Your task to perform on an android device: set default search engine in the chrome app Image 0: 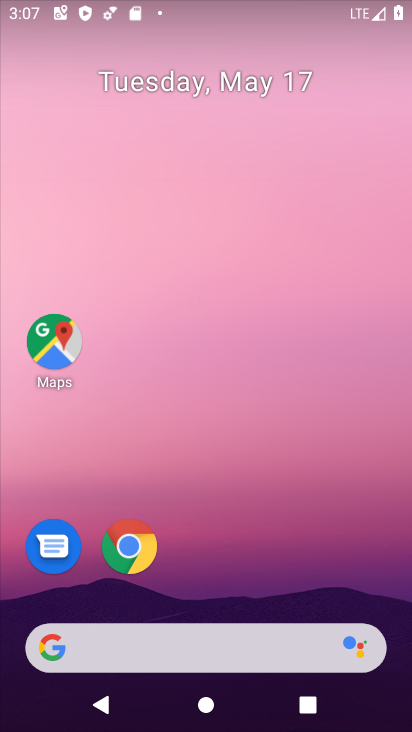
Step 0: press home button
Your task to perform on an android device: set default search engine in the chrome app Image 1: 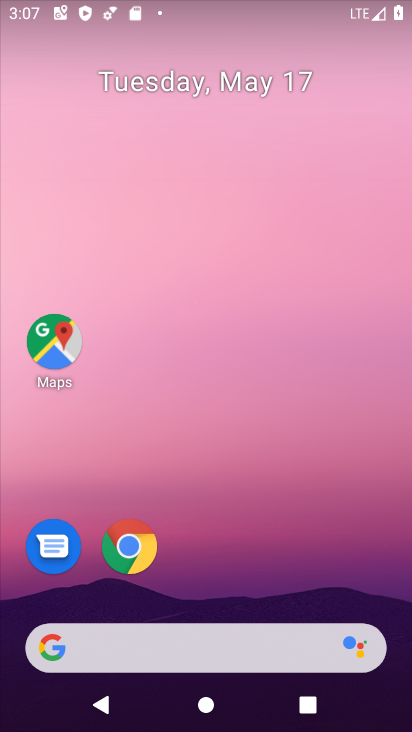
Step 1: press home button
Your task to perform on an android device: set default search engine in the chrome app Image 2: 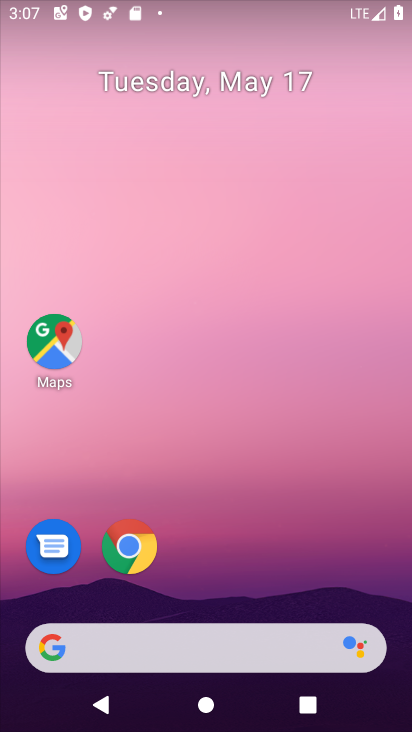
Step 2: click (124, 536)
Your task to perform on an android device: set default search engine in the chrome app Image 3: 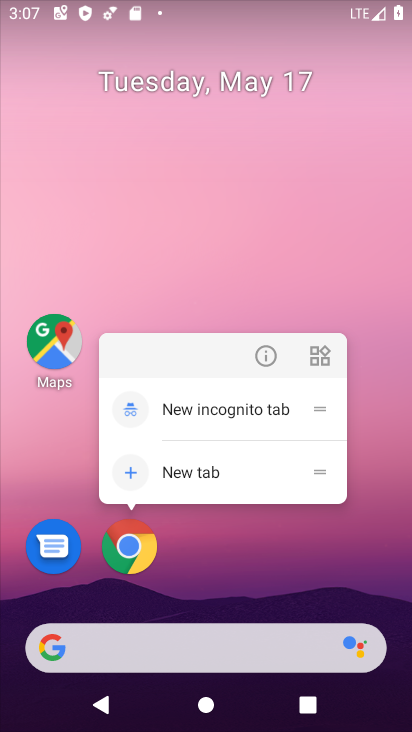
Step 3: click (124, 536)
Your task to perform on an android device: set default search engine in the chrome app Image 4: 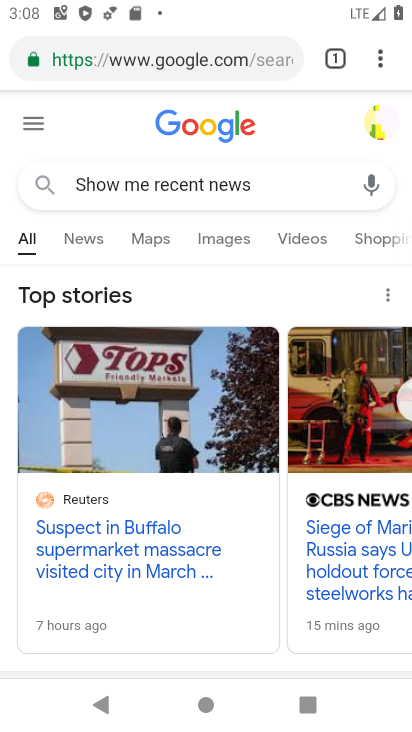
Step 4: click (270, 179)
Your task to perform on an android device: set default search engine in the chrome app Image 5: 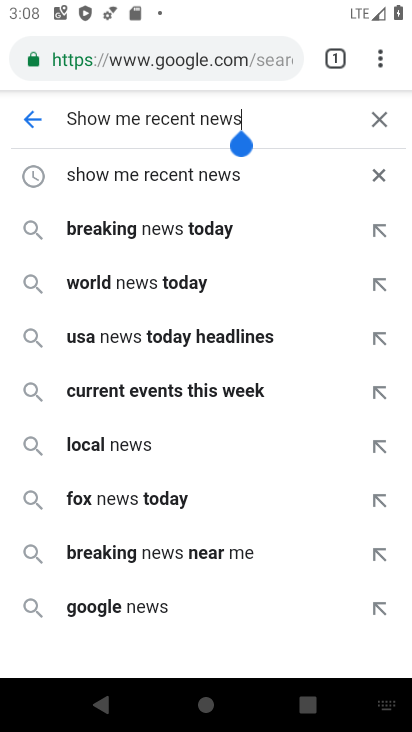
Step 5: drag from (373, 53) to (195, 573)
Your task to perform on an android device: set default search engine in the chrome app Image 6: 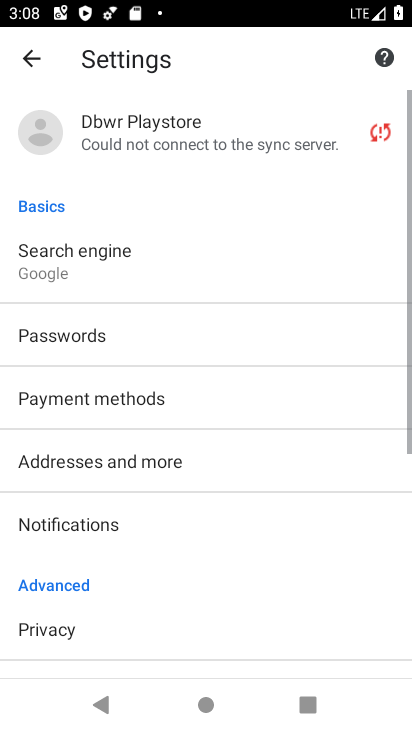
Step 6: click (92, 263)
Your task to perform on an android device: set default search engine in the chrome app Image 7: 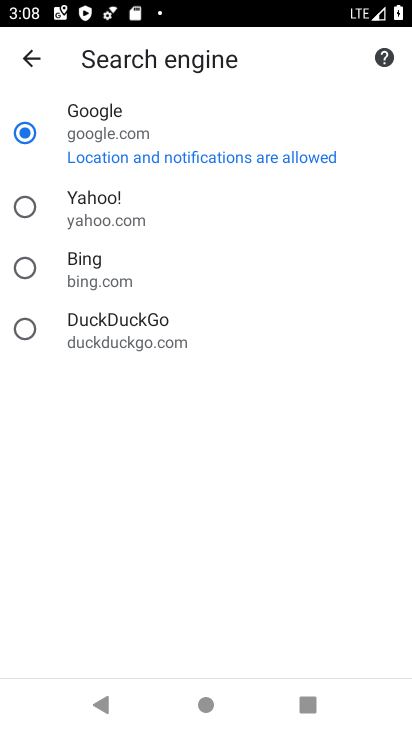
Step 7: task complete